Your task to perform on an android device: see tabs open on other devices in the chrome app Image 0: 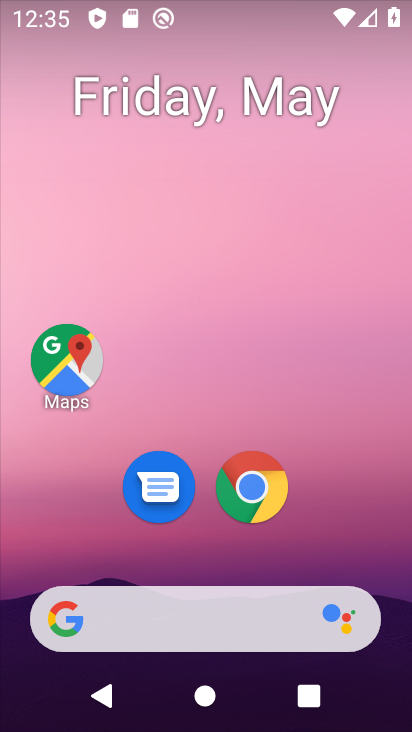
Step 0: click (258, 491)
Your task to perform on an android device: see tabs open on other devices in the chrome app Image 1: 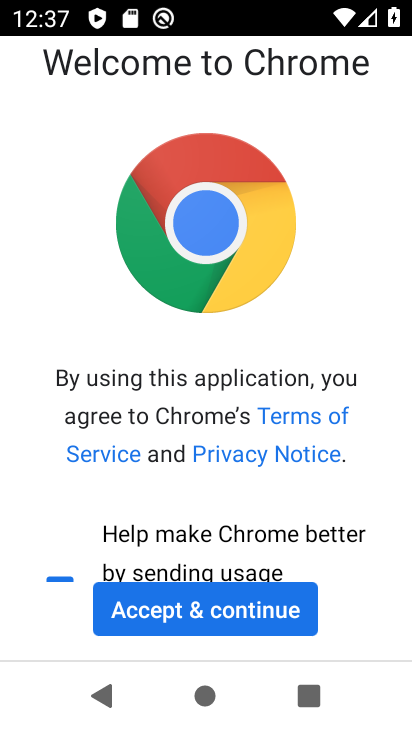
Step 1: click (190, 594)
Your task to perform on an android device: see tabs open on other devices in the chrome app Image 2: 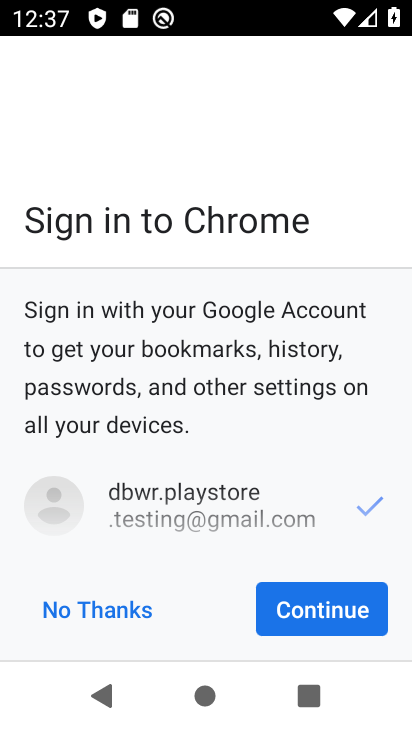
Step 2: click (287, 604)
Your task to perform on an android device: see tabs open on other devices in the chrome app Image 3: 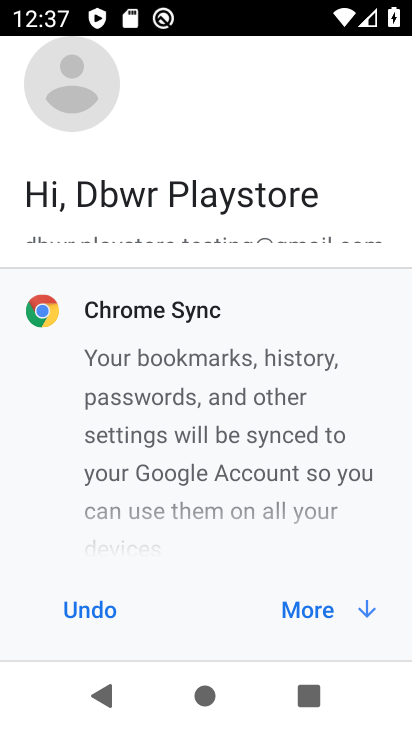
Step 3: click (287, 604)
Your task to perform on an android device: see tabs open on other devices in the chrome app Image 4: 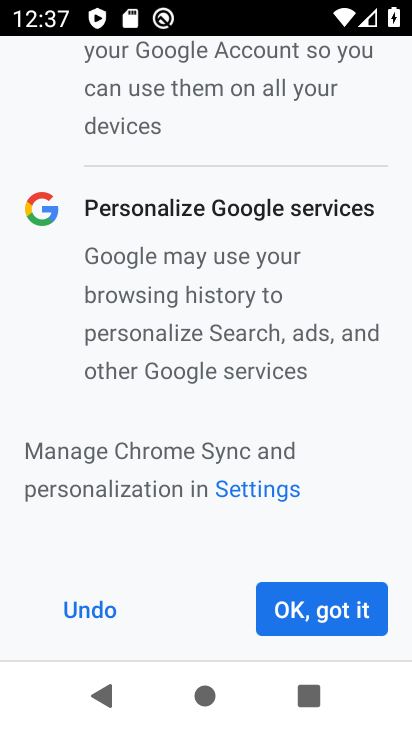
Step 4: click (287, 604)
Your task to perform on an android device: see tabs open on other devices in the chrome app Image 5: 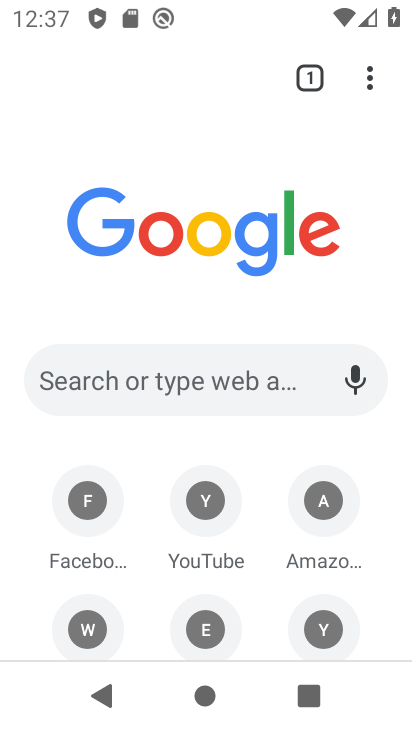
Step 5: click (388, 72)
Your task to perform on an android device: see tabs open on other devices in the chrome app Image 6: 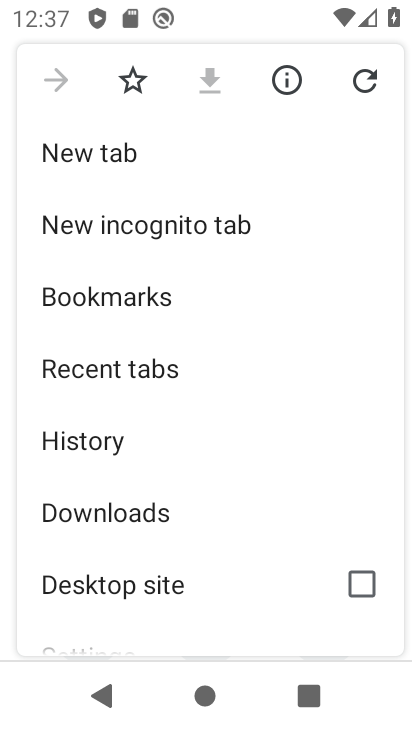
Step 6: click (135, 381)
Your task to perform on an android device: see tabs open on other devices in the chrome app Image 7: 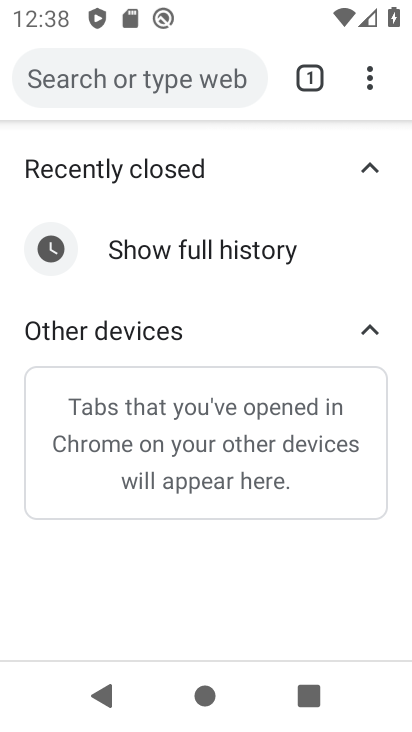
Step 7: task complete